Your task to perform on an android device: turn vacation reply on in the gmail app Image 0: 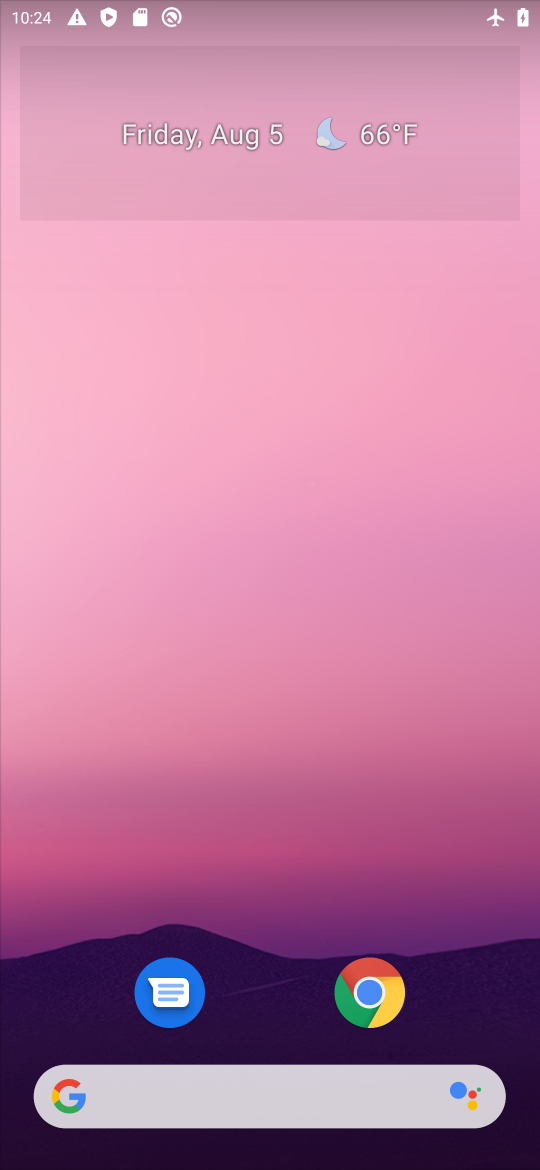
Step 0: drag from (372, 1017) to (436, 249)
Your task to perform on an android device: turn vacation reply on in the gmail app Image 1: 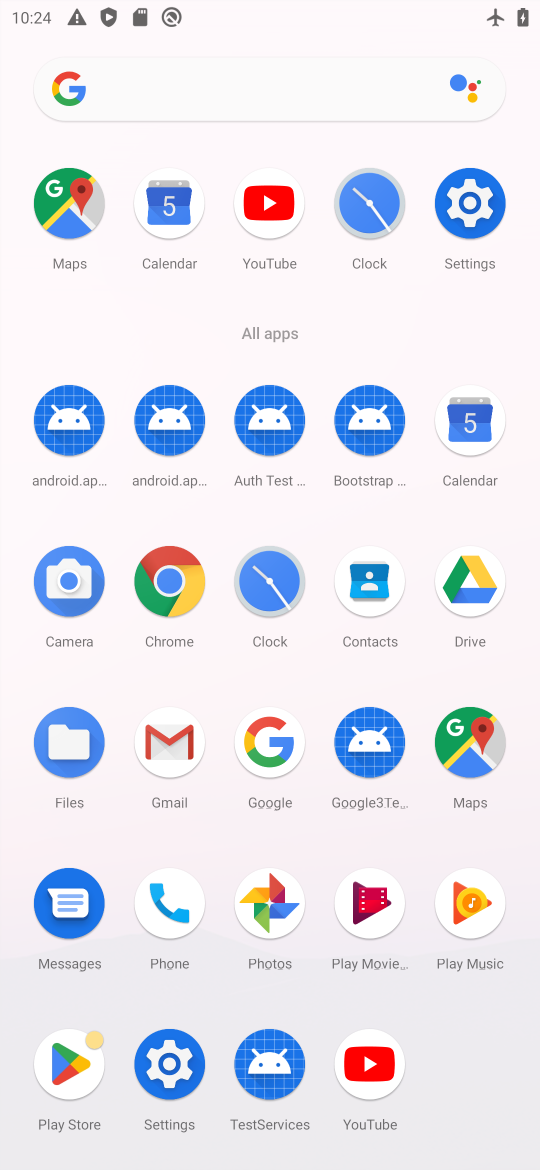
Step 1: click (177, 769)
Your task to perform on an android device: turn vacation reply on in the gmail app Image 2: 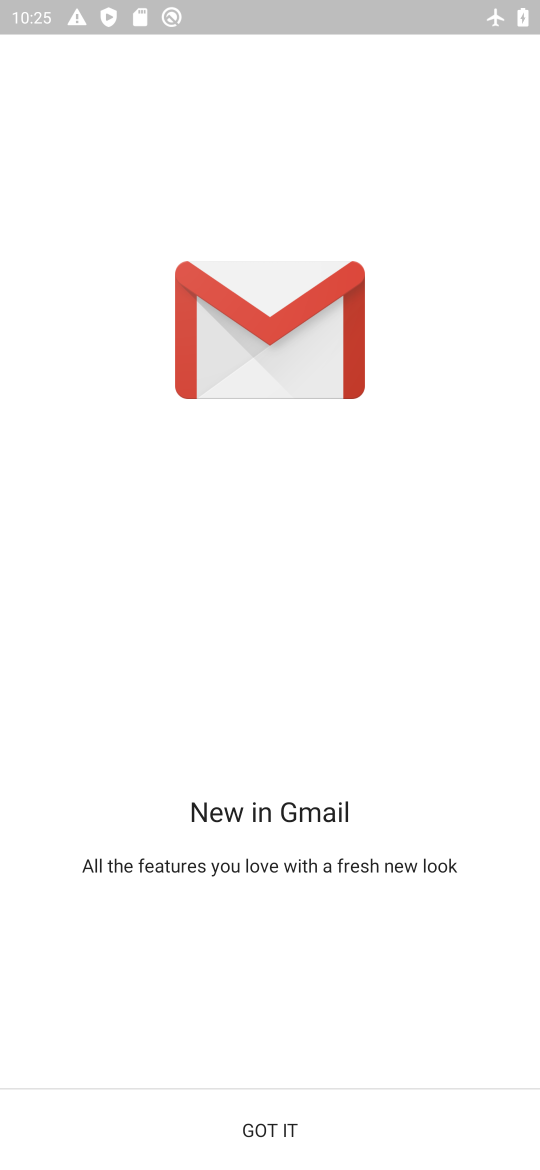
Step 2: click (404, 1139)
Your task to perform on an android device: turn vacation reply on in the gmail app Image 3: 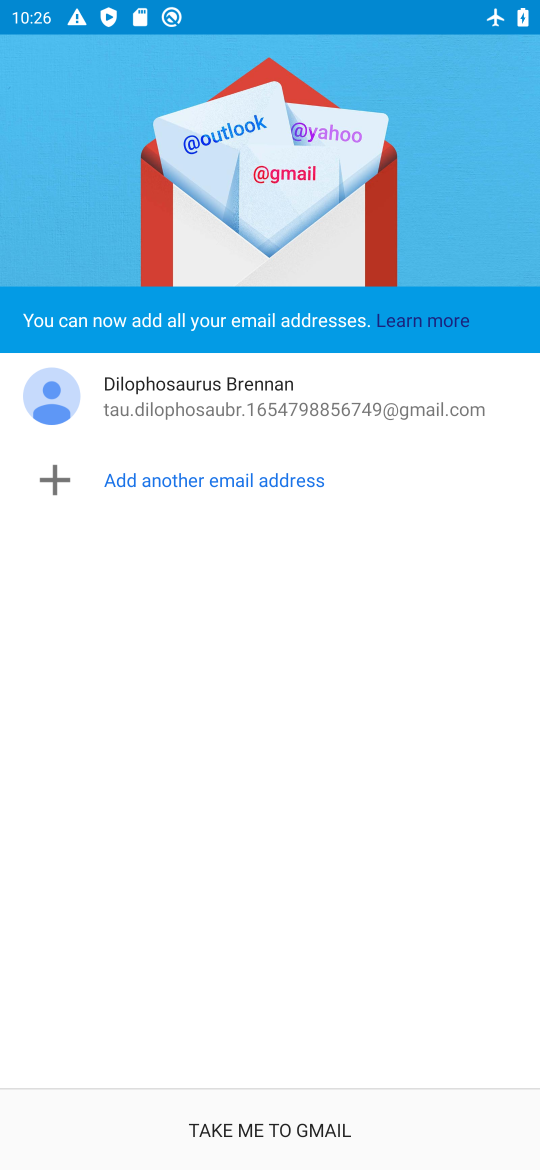
Step 3: click (286, 1123)
Your task to perform on an android device: turn vacation reply on in the gmail app Image 4: 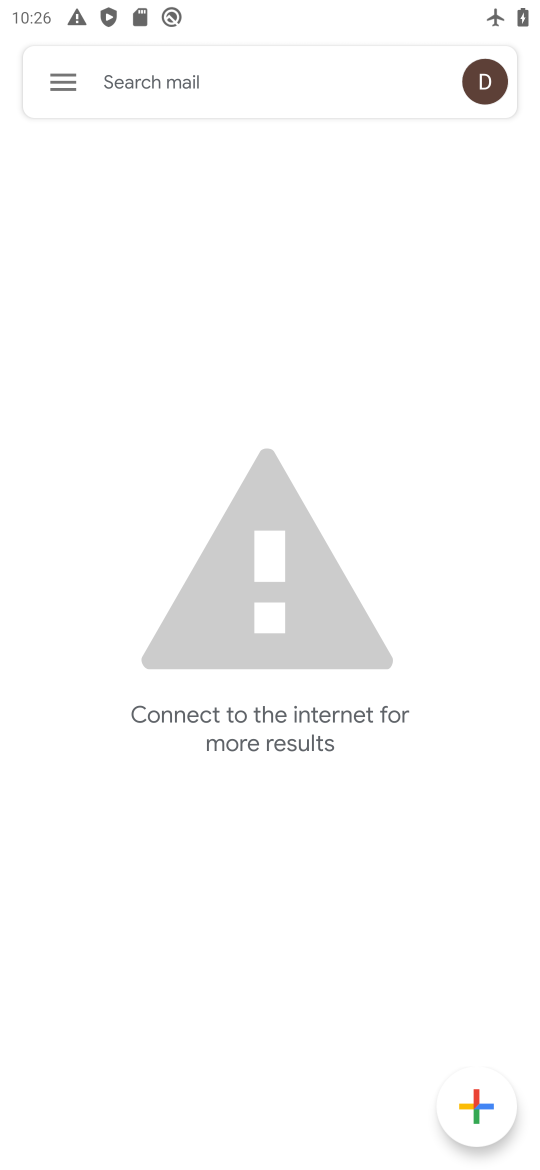
Step 4: click (50, 78)
Your task to perform on an android device: turn vacation reply on in the gmail app Image 5: 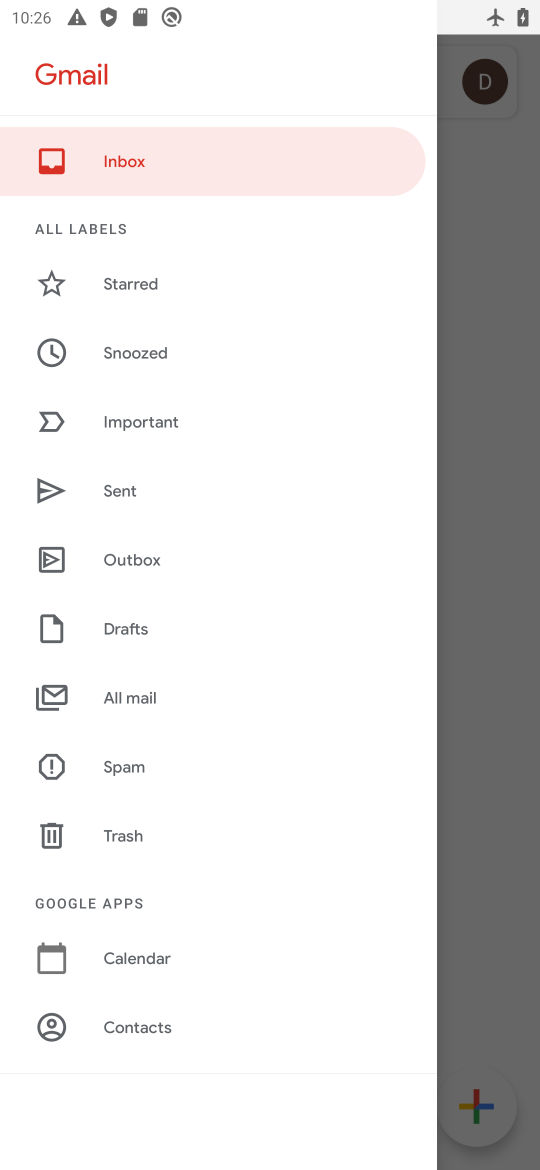
Step 5: drag from (144, 988) to (170, 416)
Your task to perform on an android device: turn vacation reply on in the gmail app Image 6: 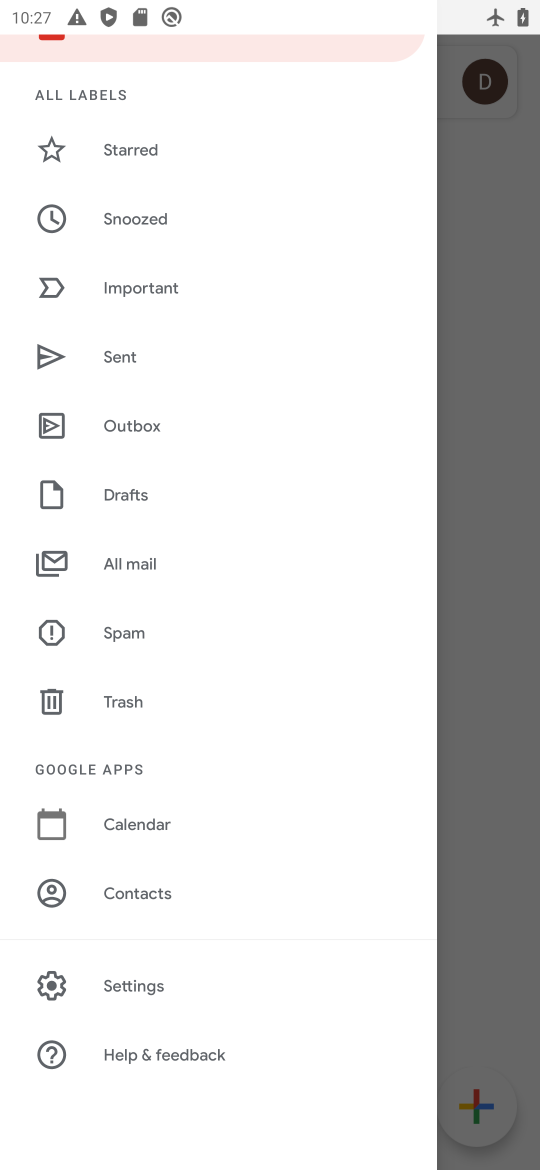
Step 6: click (116, 975)
Your task to perform on an android device: turn vacation reply on in the gmail app Image 7: 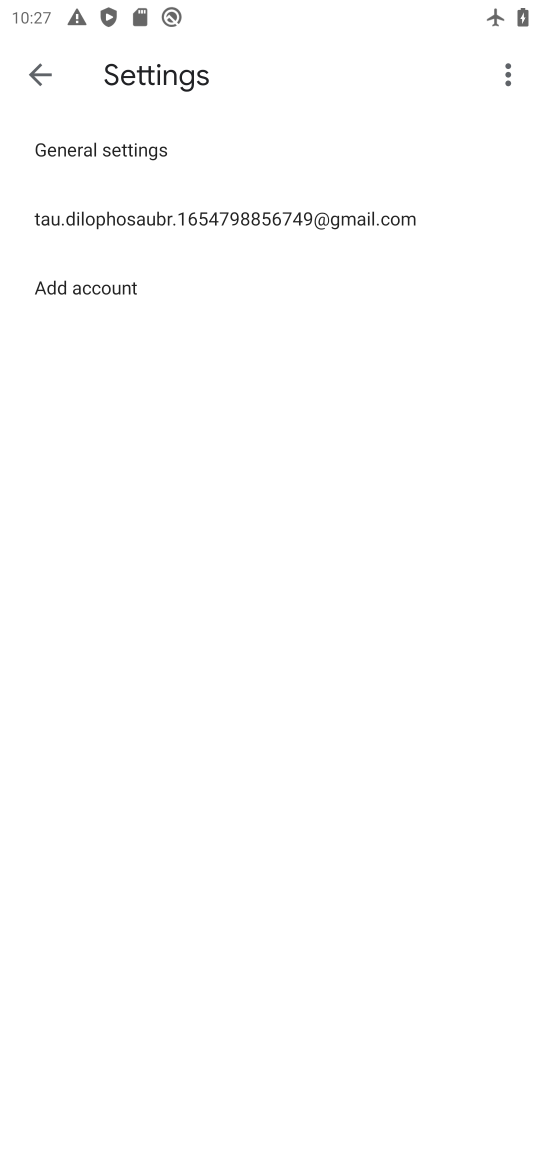
Step 7: click (143, 223)
Your task to perform on an android device: turn vacation reply on in the gmail app Image 8: 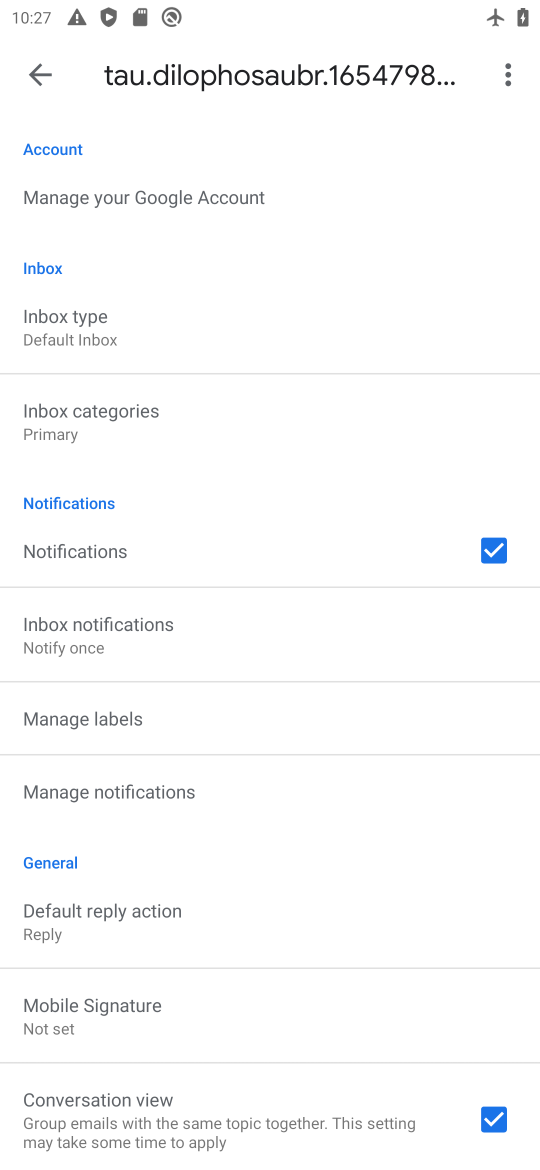
Step 8: drag from (177, 960) to (208, 389)
Your task to perform on an android device: turn vacation reply on in the gmail app Image 9: 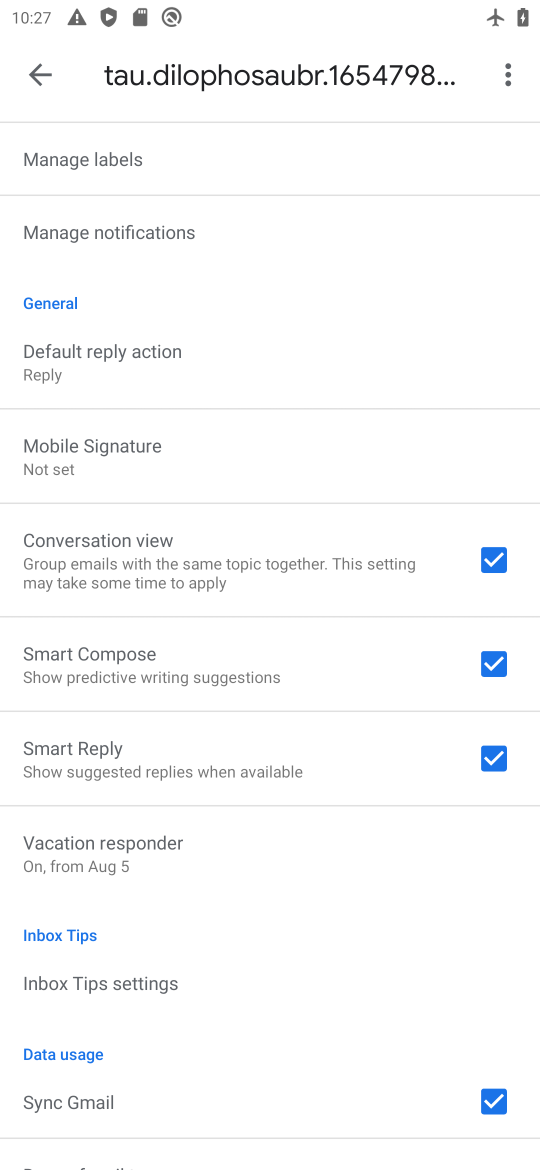
Step 9: drag from (226, 837) to (267, 507)
Your task to perform on an android device: turn vacation reply on in the gmail app Image 10: 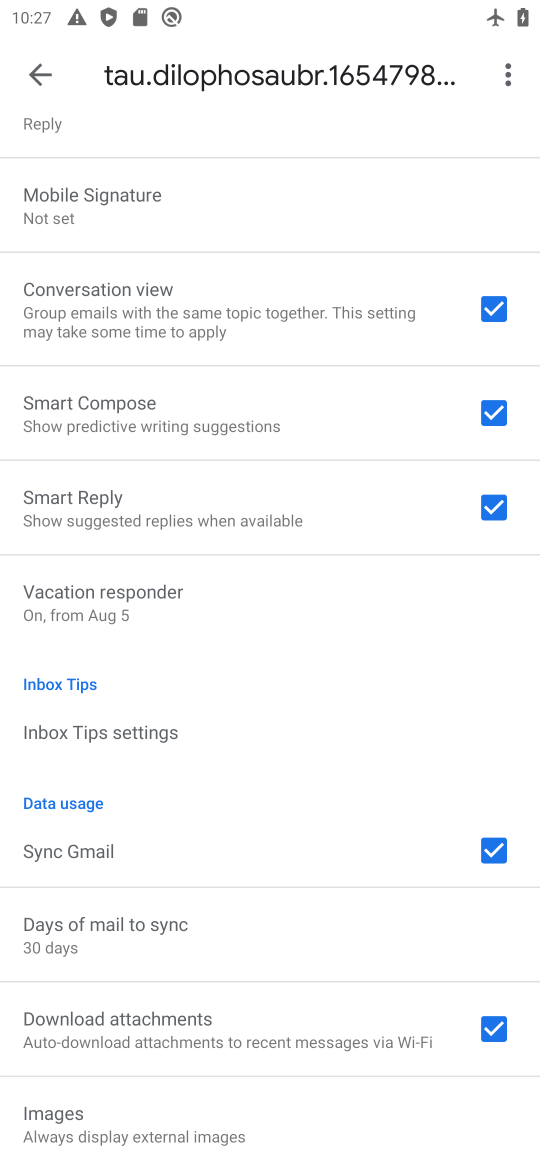
Step 10: click (223, 609)
Your task to perform on an android device: turn vacation reply on in the gmail app Image 11: 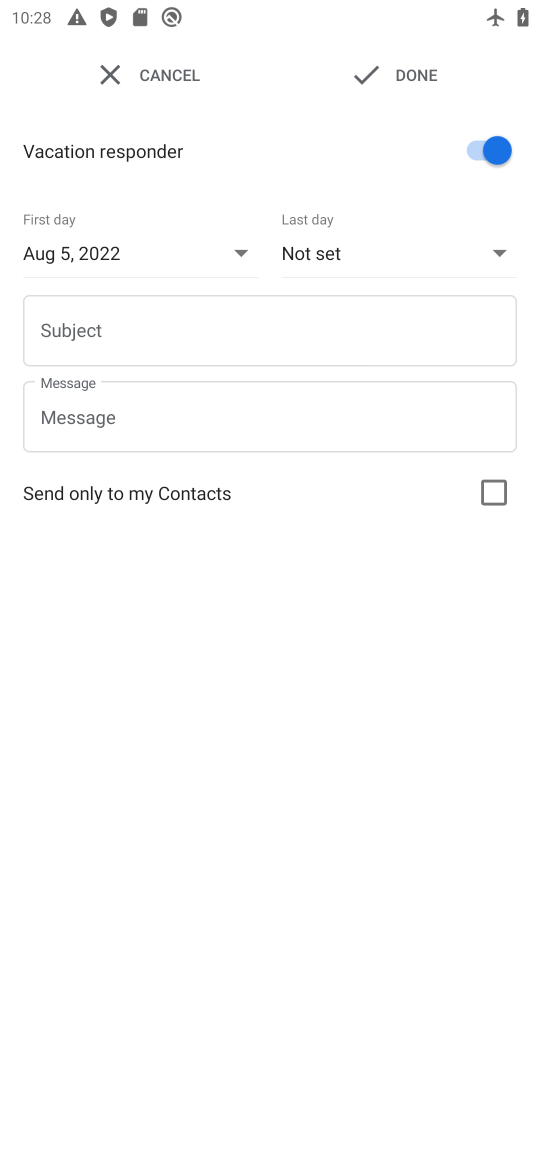
Step 11: task complete